Your task to perform on an android device: toggle wifi Image 0: 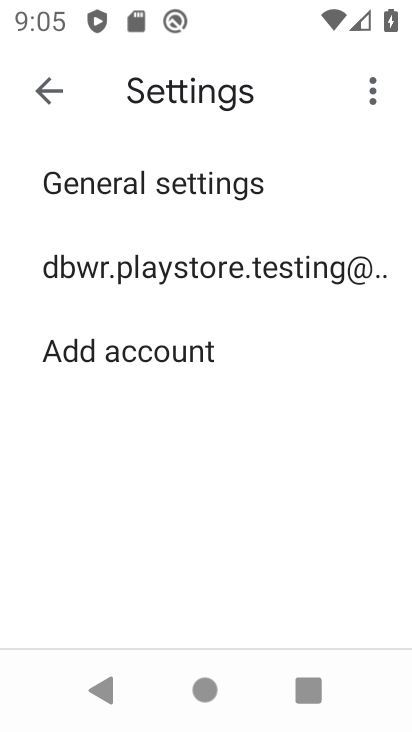
Step 0: press home button
Your task to perform on an android device: toggle wifi Image 1: 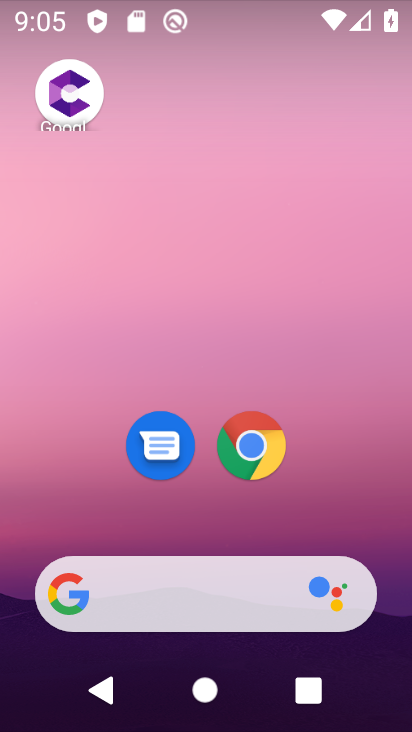
Step 1: drag from (396, 615) to (318, 78)
Your task to perform on an android device: toggle wifi Image 2: 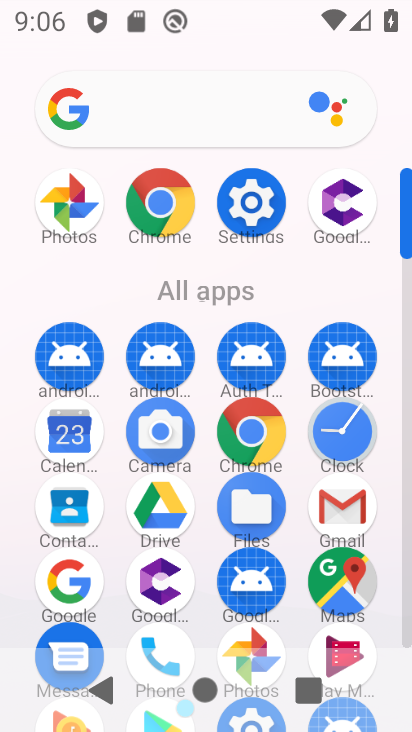
Step 2: drag from (201, 5) to (228, 445)
Your task to perform on an android device: toggle wifi Image 3: 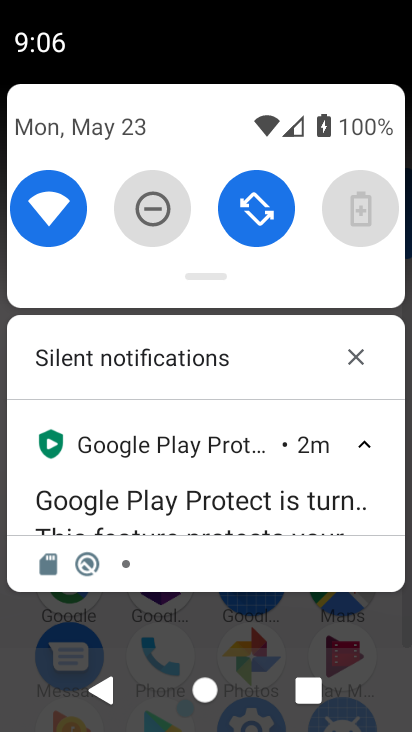
Step 3: click (53, 199)
Your task to perform on an android device: toggle wifi Image 4: 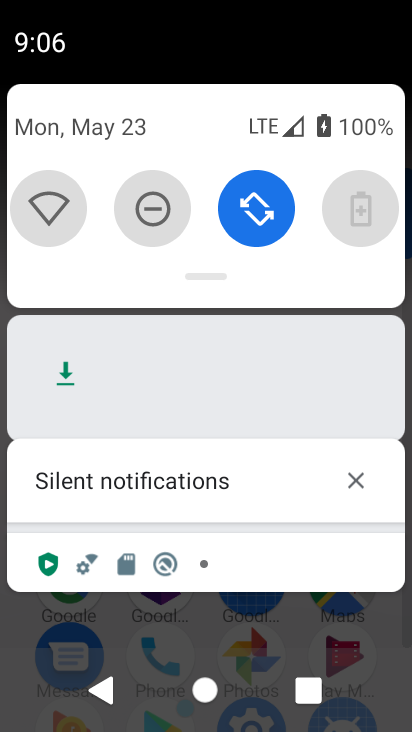
Step 4: task complete